Your task to perform on an android device: stop showing notifications on the lock screen Image 0: 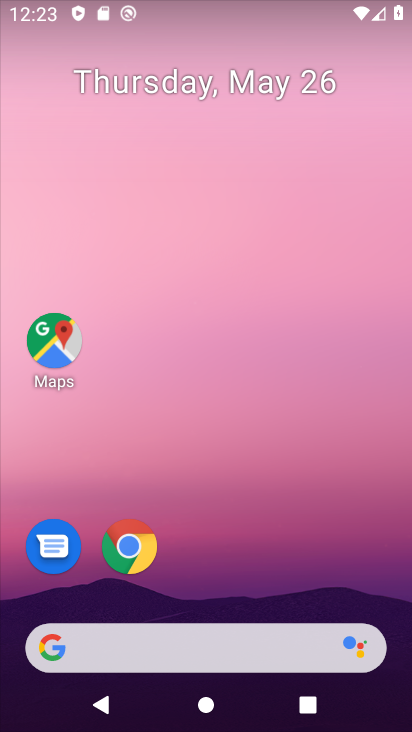
Step 0: drag from (382, 607) to (286, 47)
Your task to perform on an android device: stop showing notifications on the lock screen Image 1: 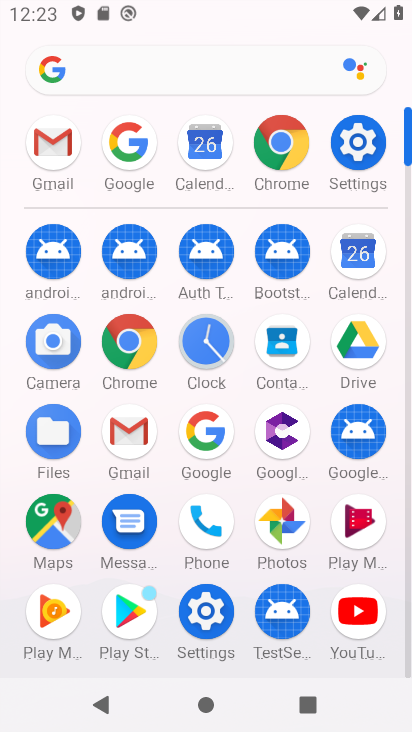
Step 1: click (363, 155)
Your task to perform on an android device: stop showing notifications on the lock screen Image 2: 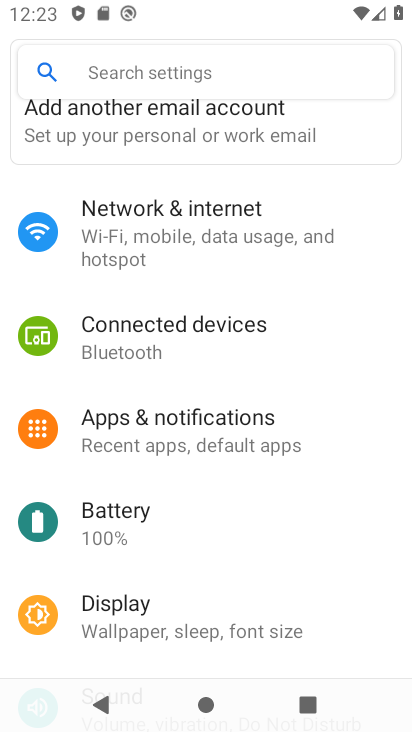
Step 2: click (253, 426)
Your task to perform on an android device: stop showing notifications on the lock screen Image 3: 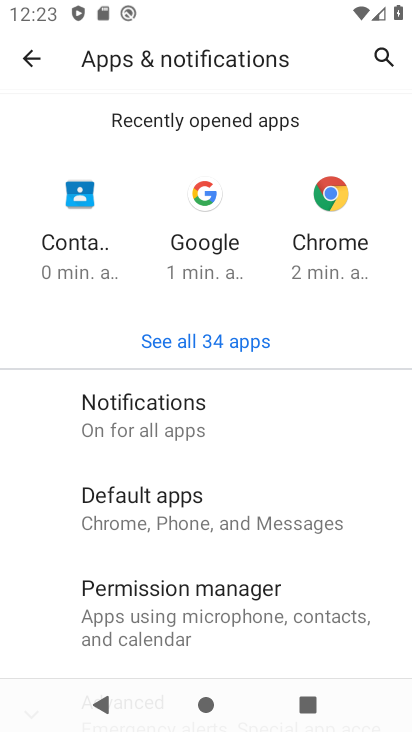
Step 3: drag from (213, 618) to (256, 248)
Your task to perform on an android device: stop showing notifications on the lock screen Image 4: 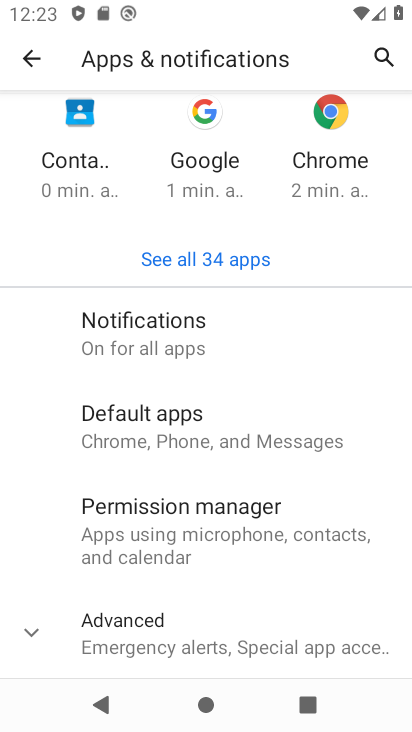
Step 4: click (146, 643)
Your task to perform on an android device: stop showing notifications on the lock screen Image 5: 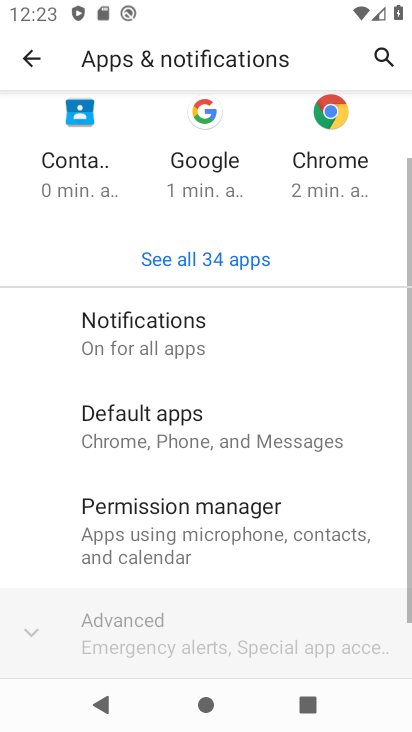
Step 5: drag from (146, 643) to (249, 196)
Your task to perform on an android device: stop showing notifications on the lock screen Image 6: 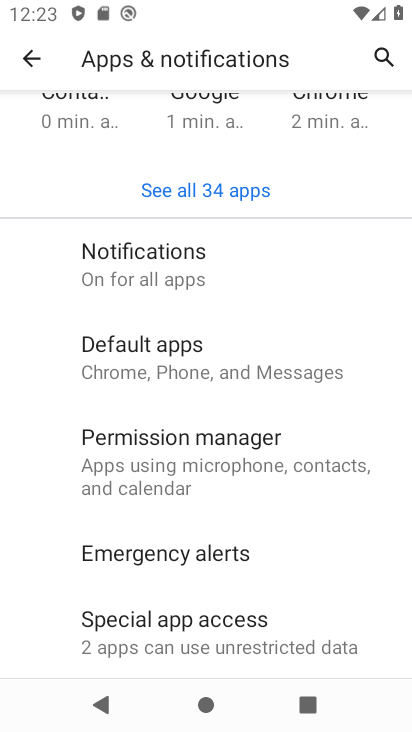
Step 6: click (240, 277)
Your task to perform on an android device: stop showing notifications on the lock screen Image 7: 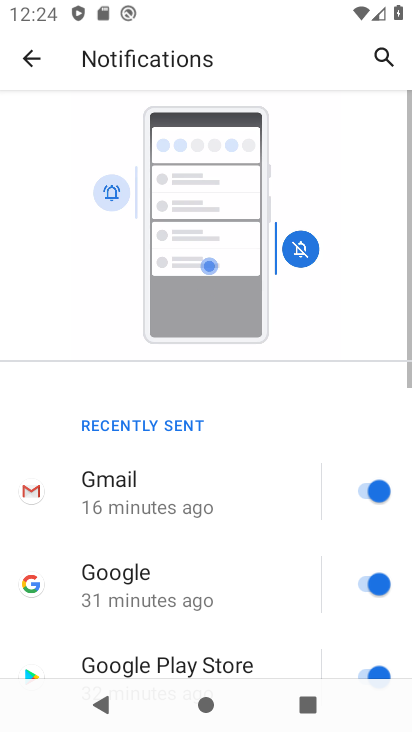
Step 7: drag from (196, 653) to (256, 184)
Your task to perform on an android device: stop showing notifications on the lock screen Image 8: 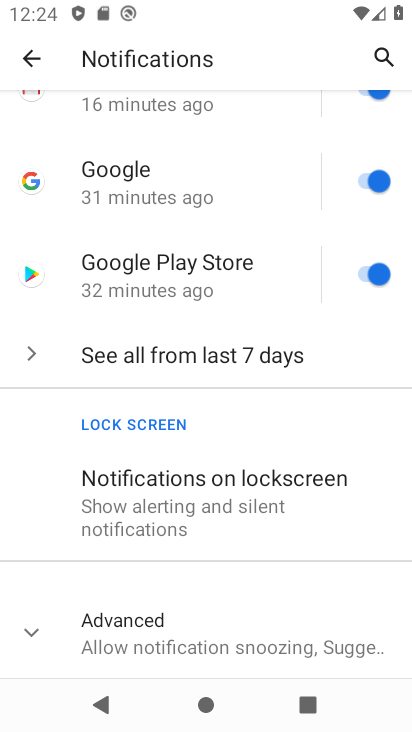
Step 8: click (265, 500)
Your task to perform on an android device: stop showing notifications on the lock screen Image 9: 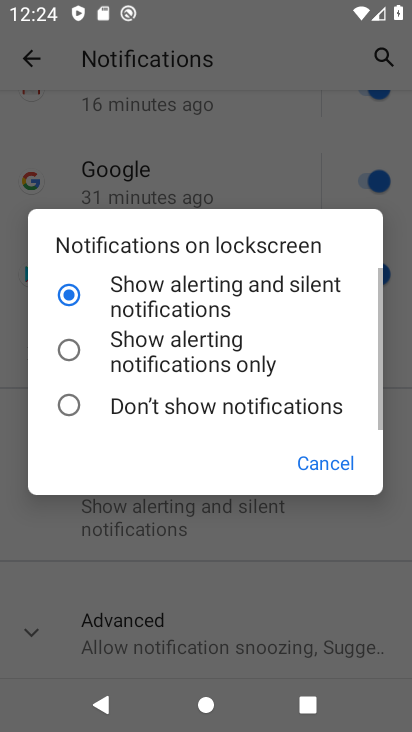
Step 9: click (73, 398)
Your task to perform on an android device: stop showing notifications on the lock screen Image 10: 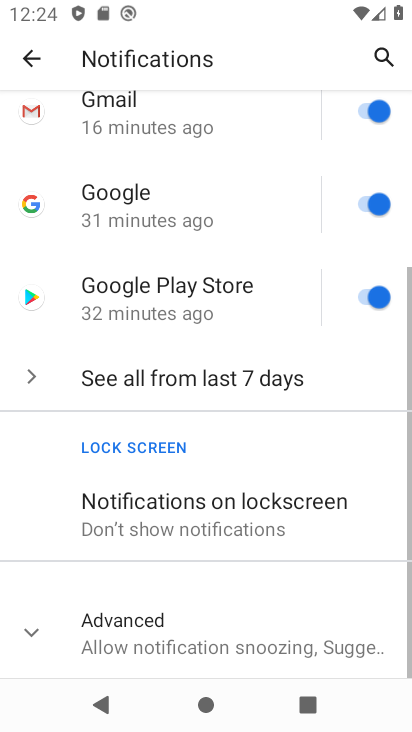
Step 10: task complete